Your task to perform on an android device: Open Amazon Image 0: 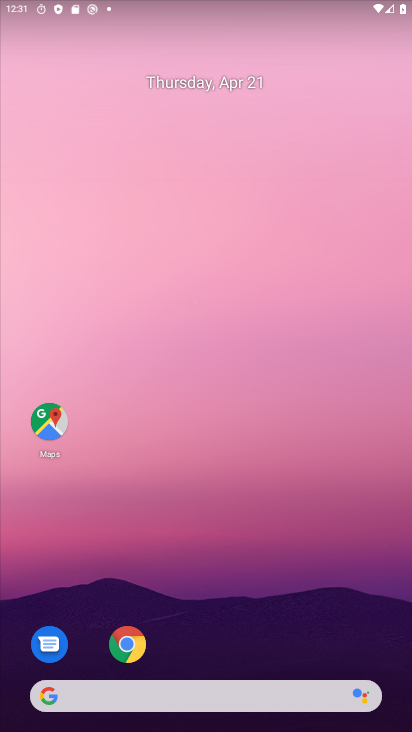
Step 0: drag from (247, 460) to (309, 17)
Your task to perform on an android device: Open Amazon Image 1: 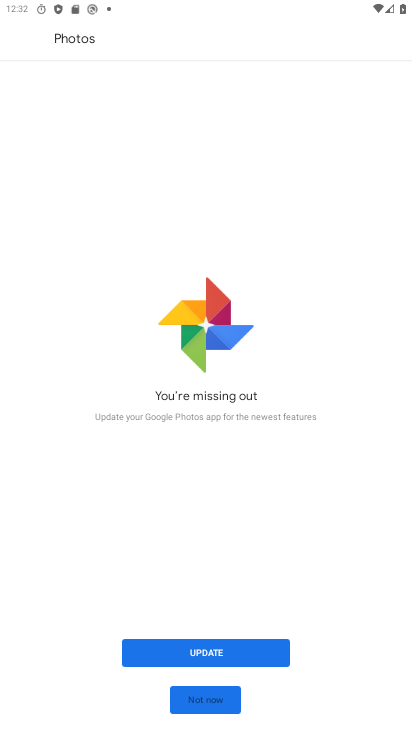
Step 1: press home button
Your task to perform on an android device: Open Amazon Image 2: 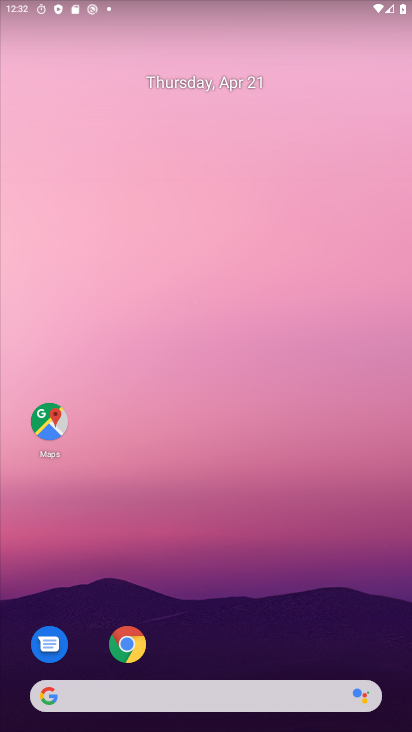
Step 2: click (134, 639)
Your task to perform on an android device: Open Amazon Image 3: 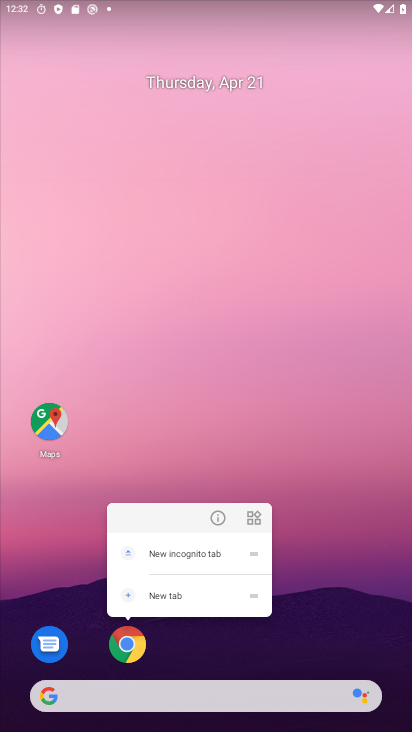
Step 3: click (130, 642)
Your task to perform on an android device: Open Amazon Image 4: 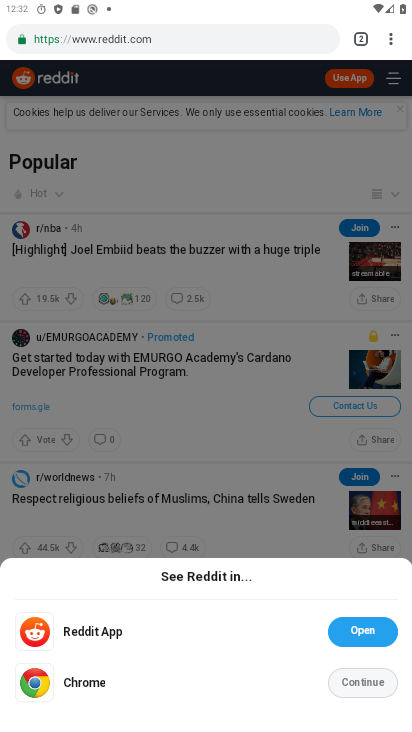
Step 4: click (363, 33)
Your task to perform on an android device: Open Amazon Image 5: 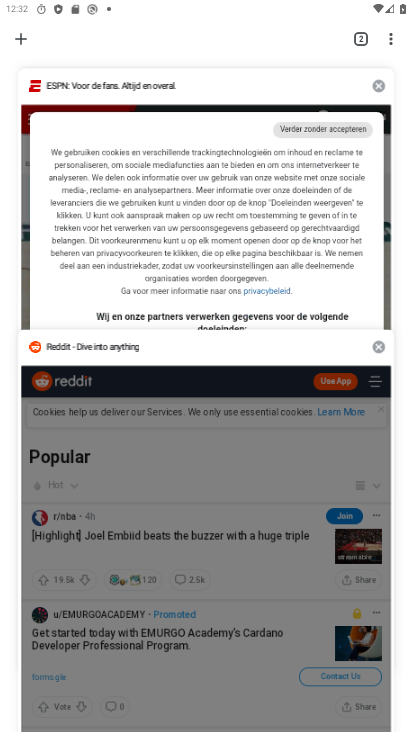
Step 5: click (21, 36)
Your task to perform on an android device: Open Amazon Image 6: 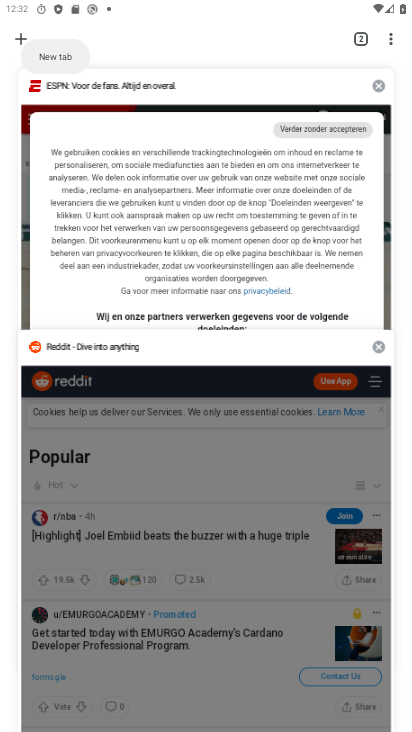
Step 6: click (18, 33)
Your task to perform on an android device: Open Amazon Image 7: 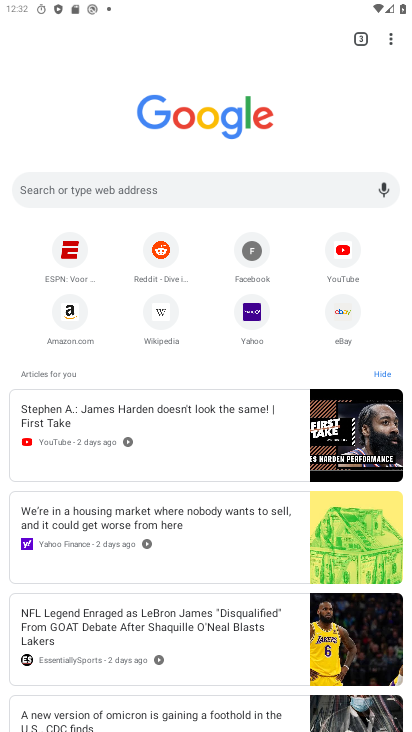
Step 7: click (46, 321)
Your task to perform on an android device: Open Amazon Image 8: 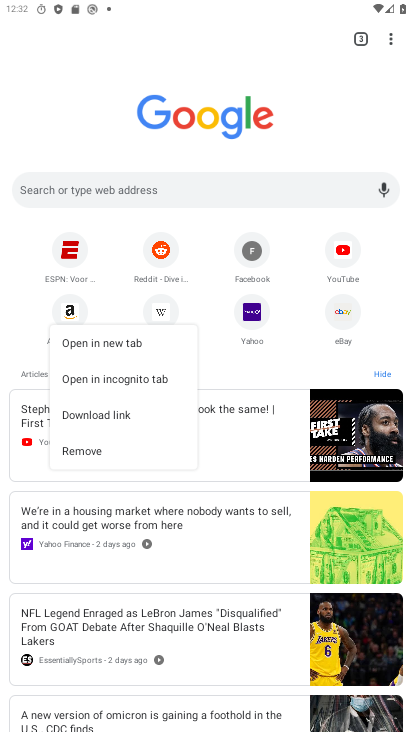
Step 8: click (70, 310)
Your task to perform on an android device: Open Amazon Image 9: 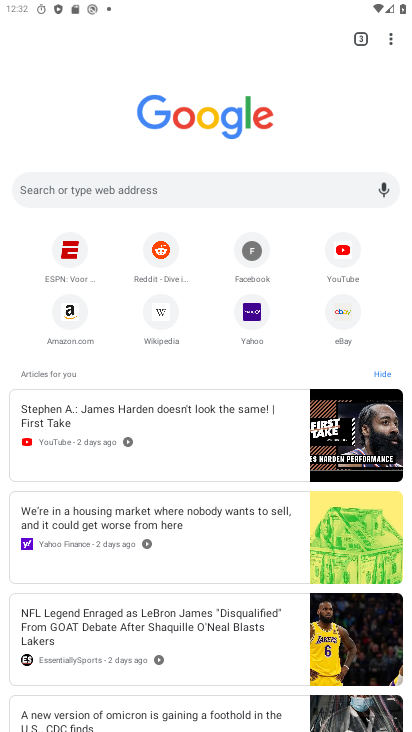
Step 9: click (70, 310)
Your task to perform on an android device: Open Amazon Image 10: 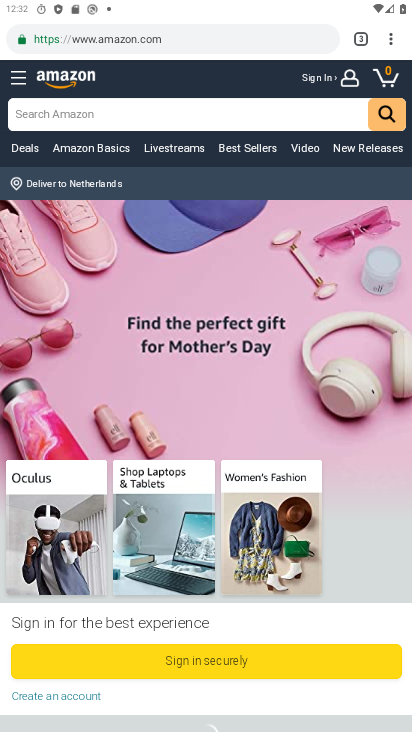
Step 10: task complete